Your task to perform on an android device: Go to location settings Image 0: 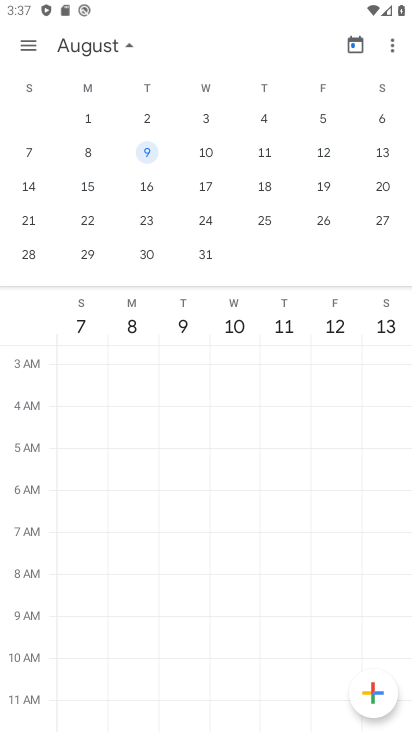
Step 0: press home button
Your task to perform on an android device: Go to location settings Image 1: 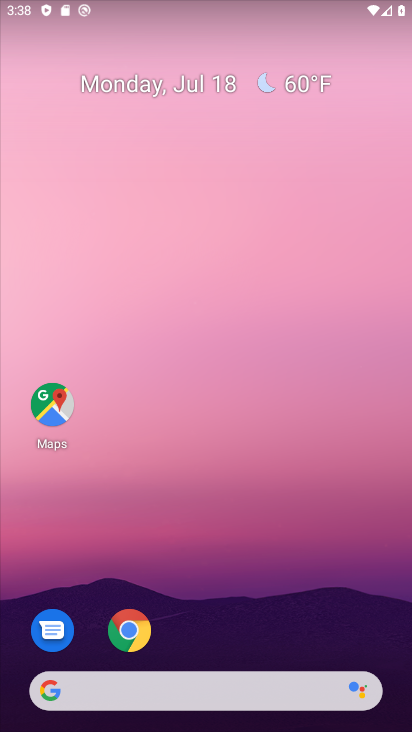
Step 1: drag from (311, 624) to (252, 170)
Your task to perform on an android device: Go to location settings Image 2: 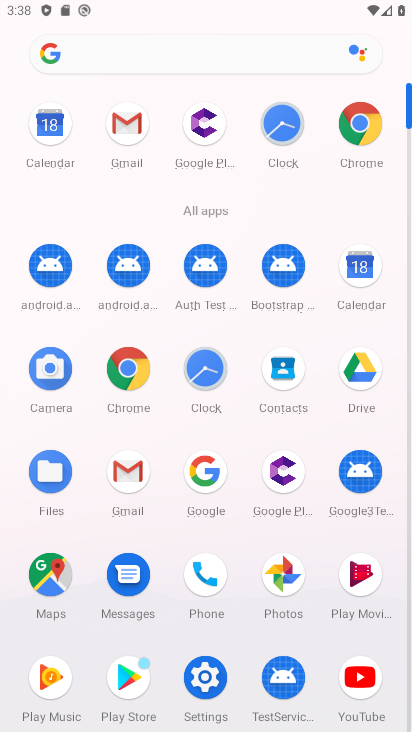
Step 2: click (197, 690)
Your task to perform on an android device: Go to location settings Image 3: 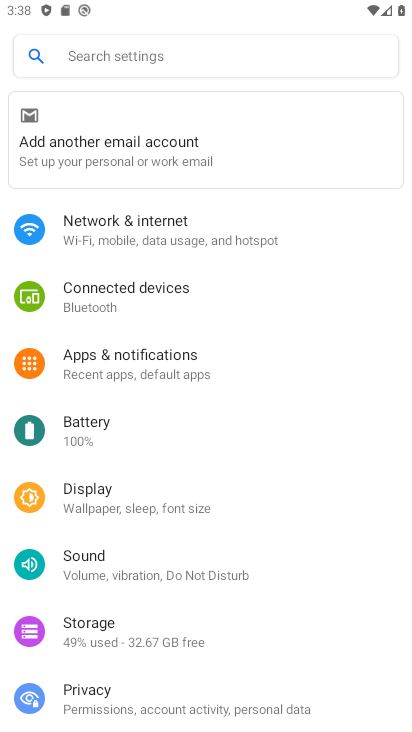
Step 3: drag from (157, 646) to (118, 370)
Your task to perform on an android device: Go to location settings Image 4: 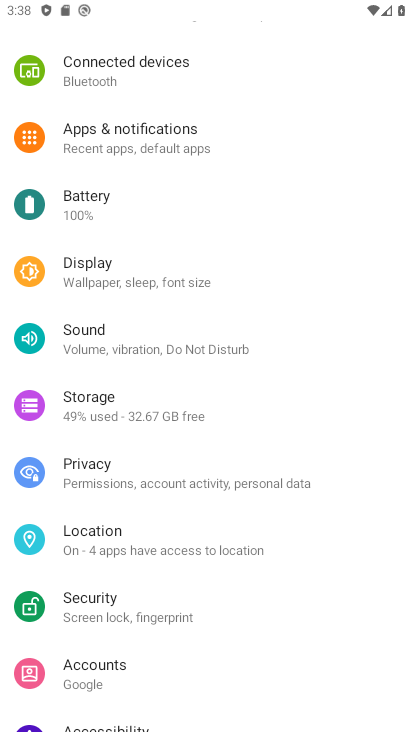
Step 4: click (117, 548)
Your task to perform on an android device: Go to location settings Image 5: 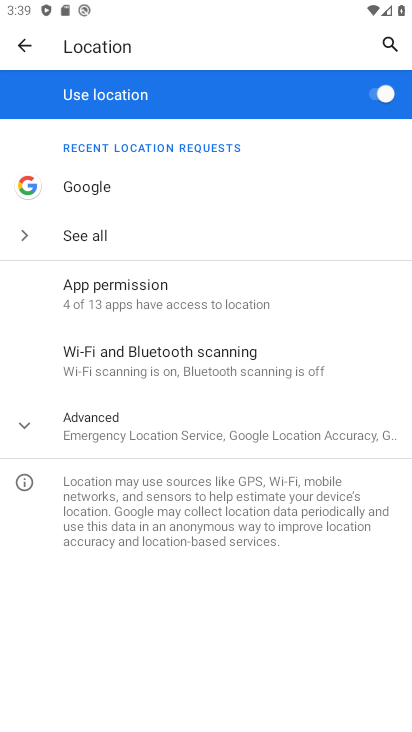
Step 5: task complete